Your task to perform on an android device: Check the weather Image 0: 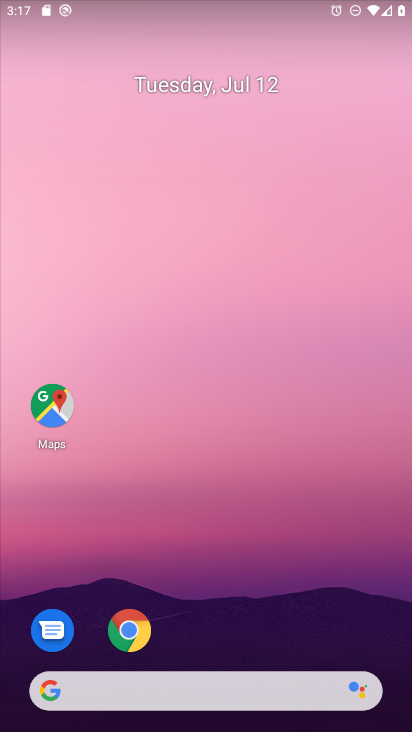
Step 0: drag from (195, 635) to (195, 150)
Your task to perform on an android device: Check the weather Image 1: 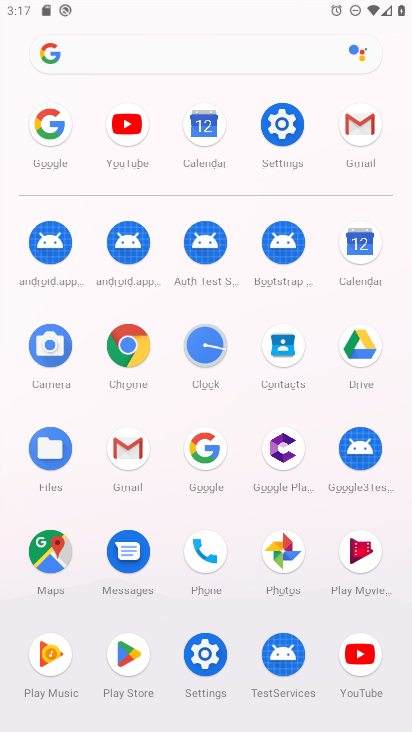
Step 1: click (212, 452)
Your task to perform on an android device: Check the weather Image 2: 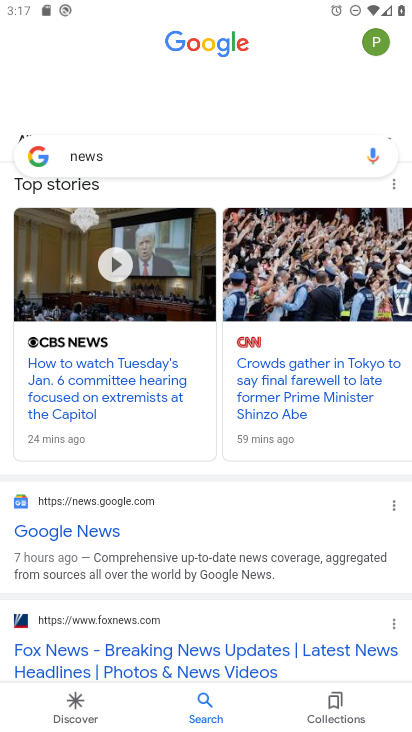
Step 2: click (209, 172)
Your task to perform on an android device: Check the weather Image 3: 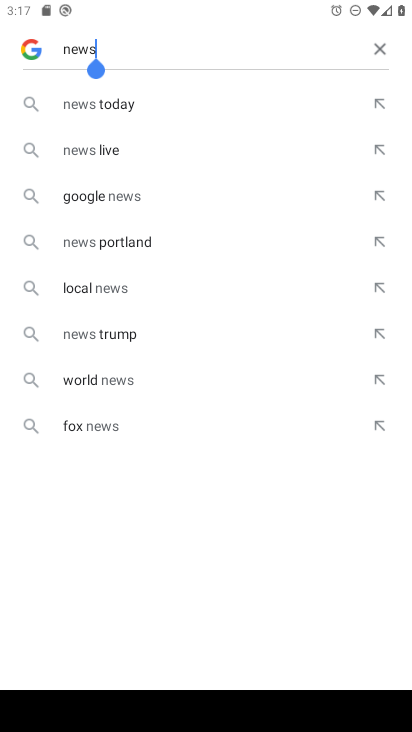
Step 3: click (390, 45)
Your task to perform on an android device: Check the weather Image 4: 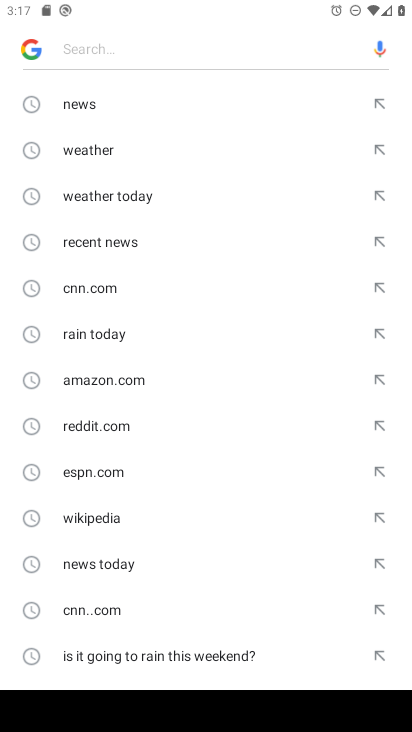
Step 4: click (103, 153)
Your task to perform on an android device: Check the weather Image 5: 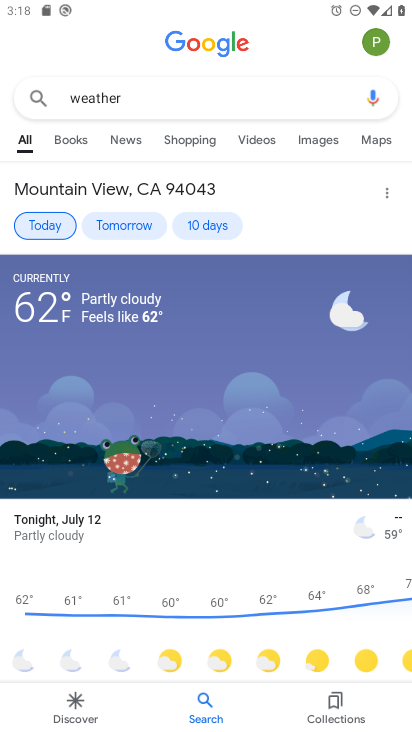
Step 5: task complete